Your task to perform on an android device: open sync settings in chrome Image 0: 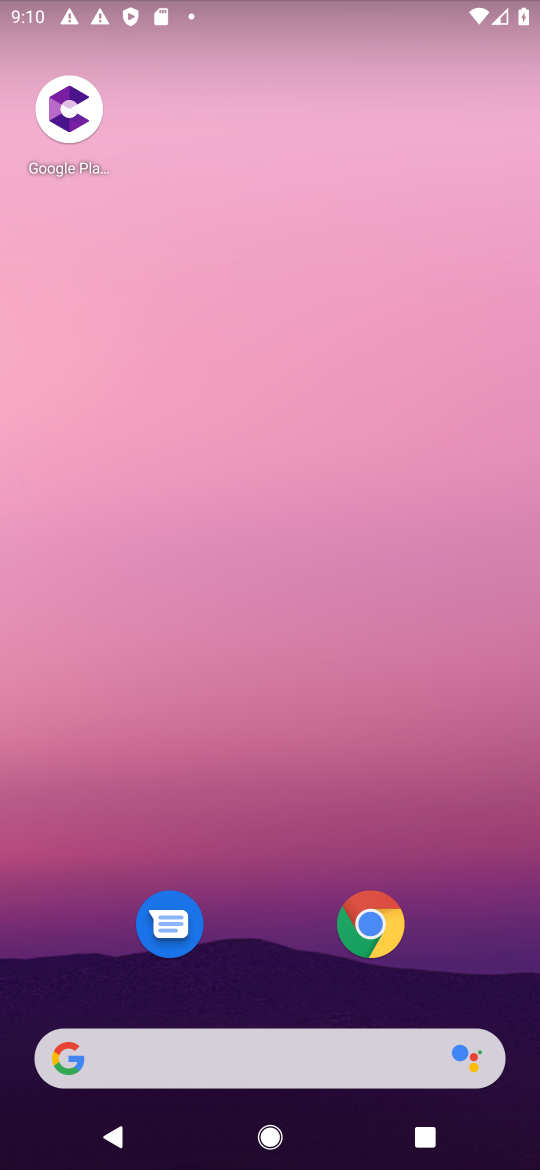
Step 0: drag from (243, 950) to (400, 209)
Your task to perform on an android device: open sync settings in chrome Image 1: 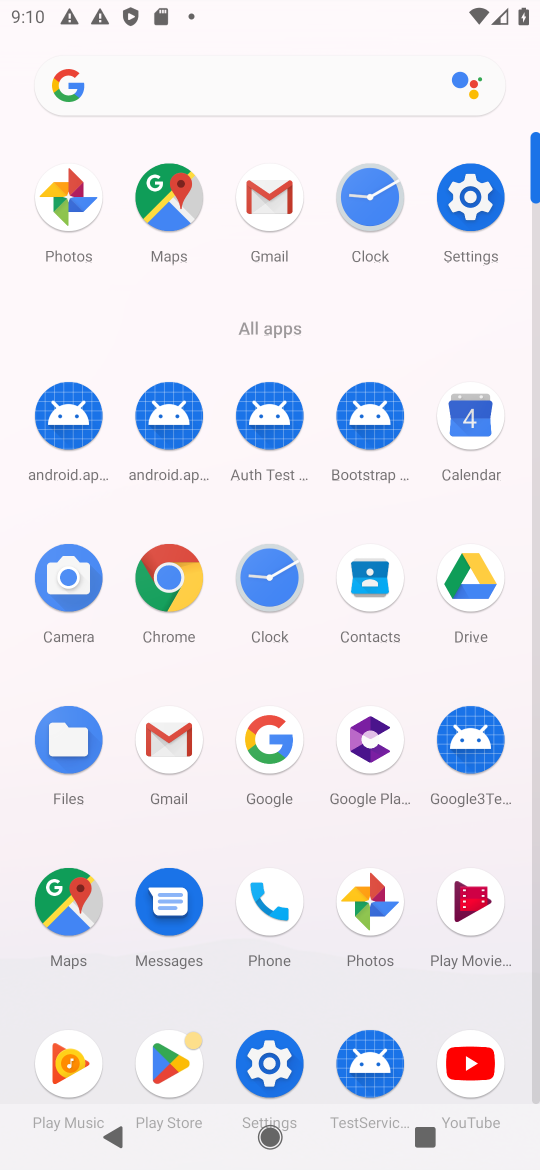
Step 1: drag from (325, 958) to (322, 553)
Your task to perform on an android device: open sync settings in chrome Image 2: 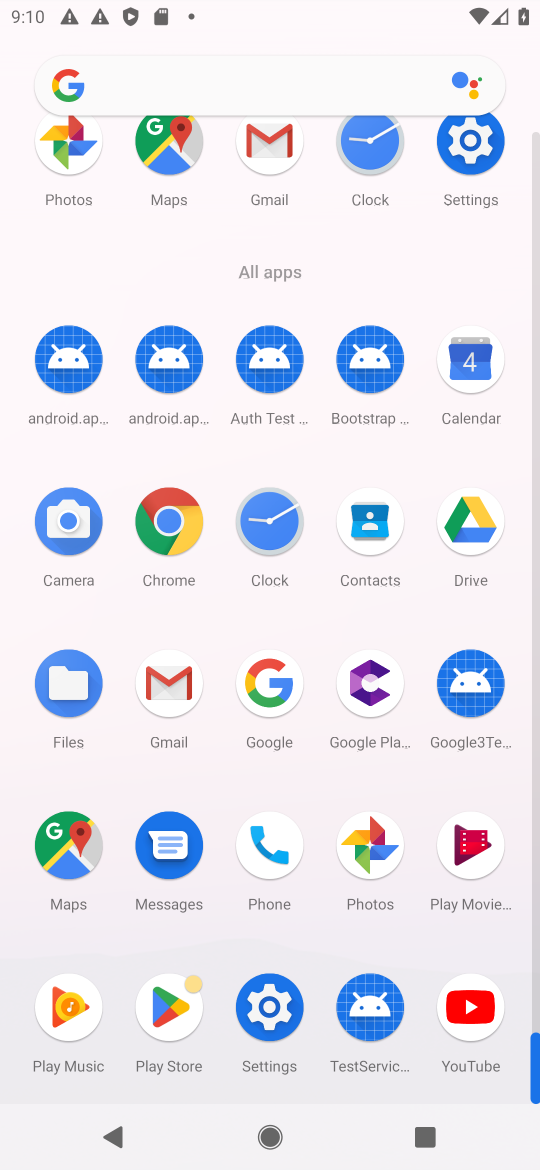
Step 2: drag from (317, 889) to (354, 360)
Your task to perform on an android device: open sync settings in chrome Image 3: 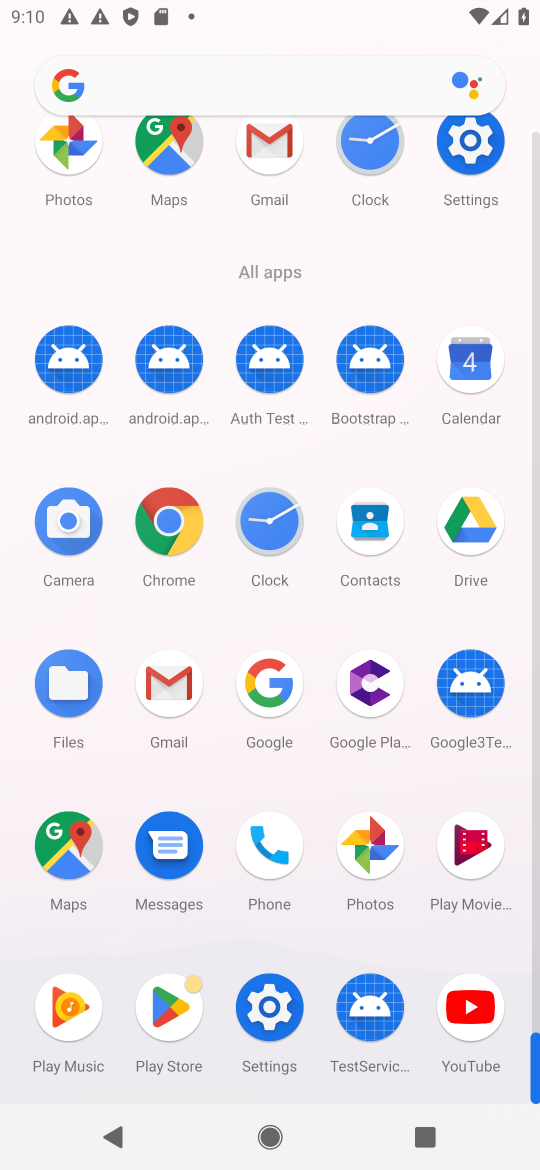
Step 3: click (176, 508)
Your task to perform on an android device: open sync settings in chrome Image 4: 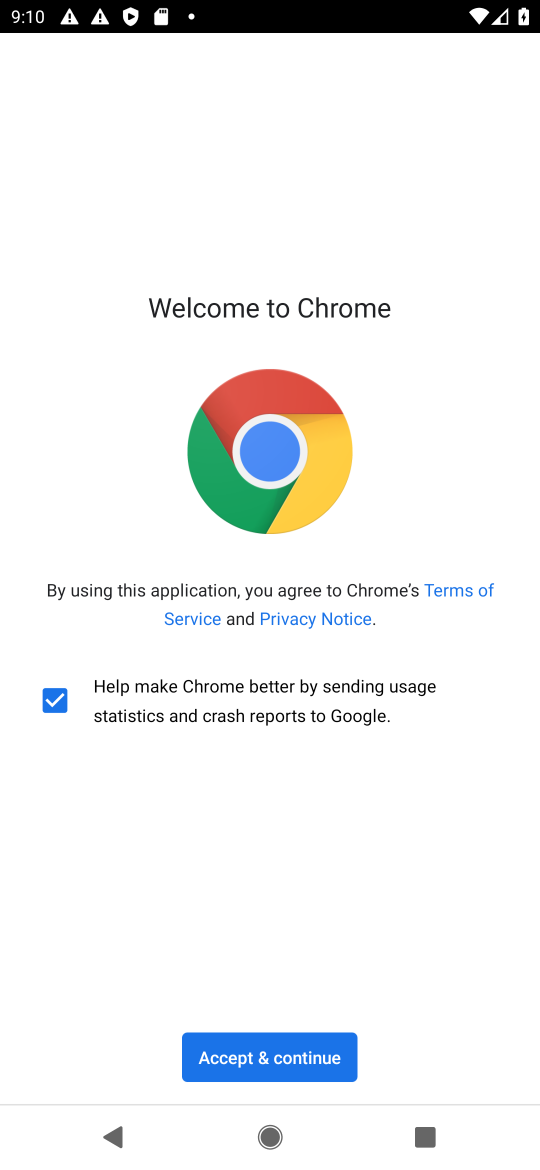
Step 4: click (268, 1042)
Your task to perform on an android device: open sync settings in chrome Image 5: 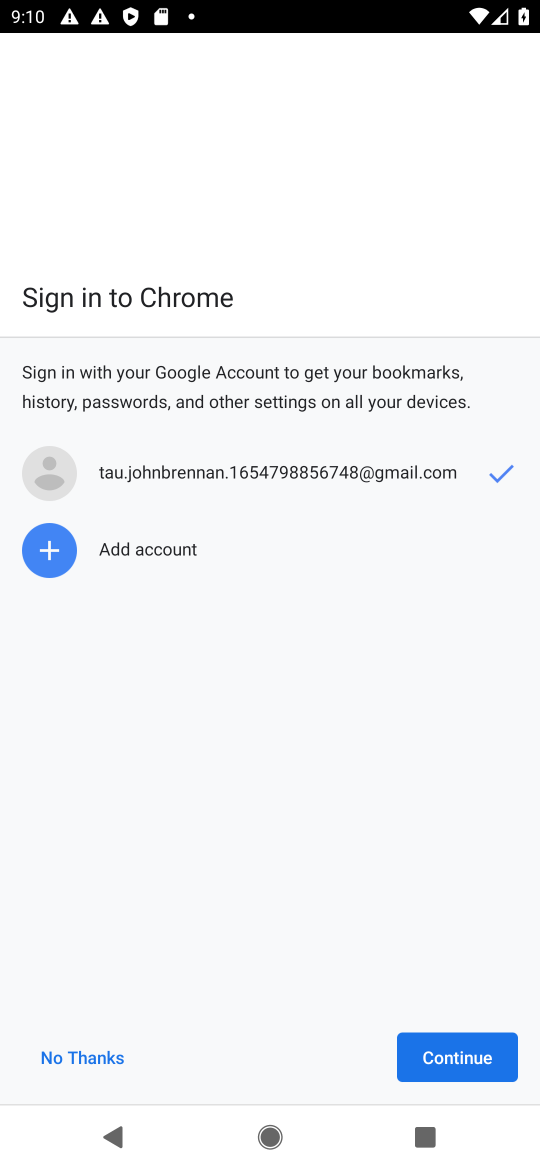
Step 5: click (449, 1053)
Your task to perform on an android device: open sync settings in chrome Image 6: 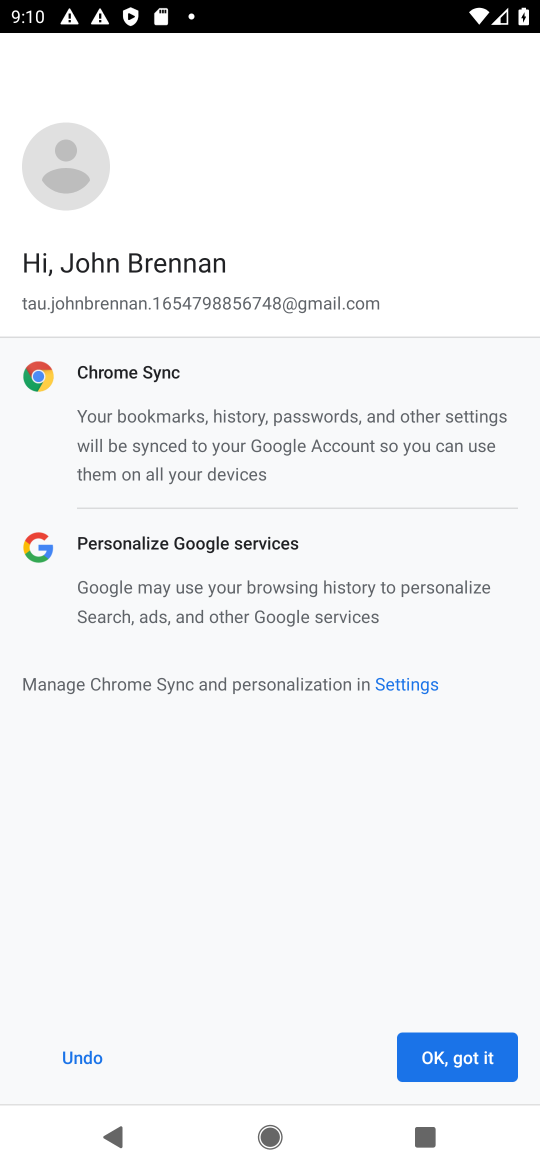
Step 6: click (438, 1042)
Your task to perform on an android device: open sync settings in chrome Image 7: 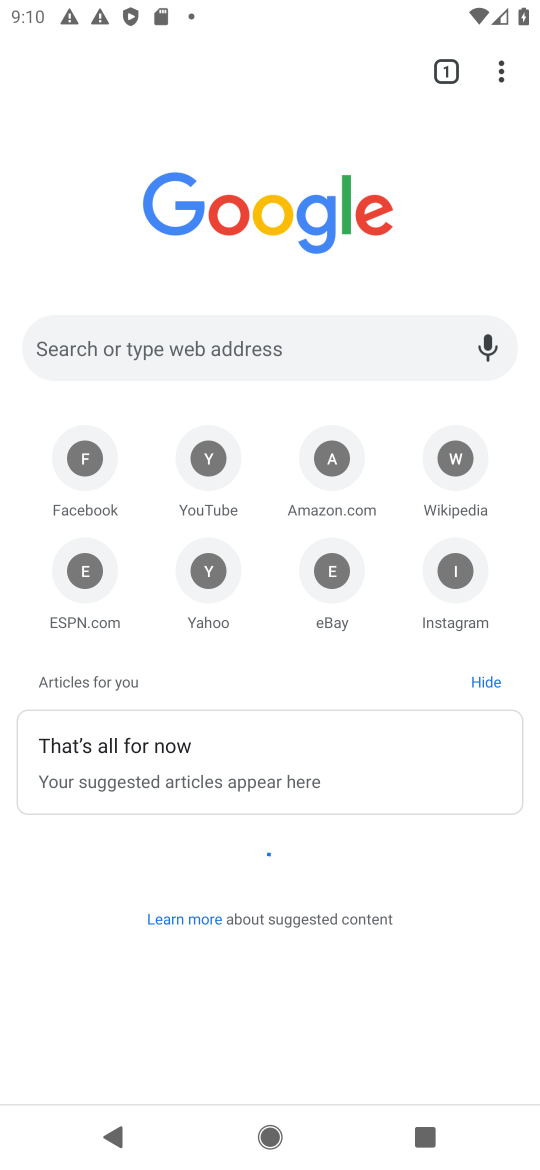
Step 7: drag from (491, 73) to (290, 611)
Your task to perform on an android device: open sync settings in chrome Image 8: 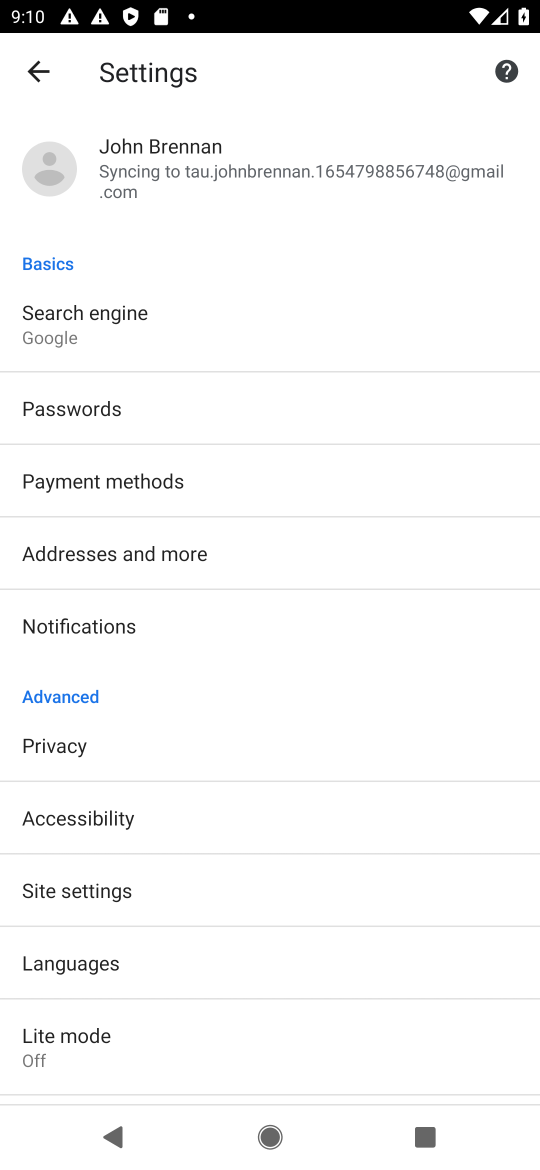
Step 8: drag from (287, 932) to (382, 255)
Your task to perform on an android device: open sync settings in chrome Image 9: 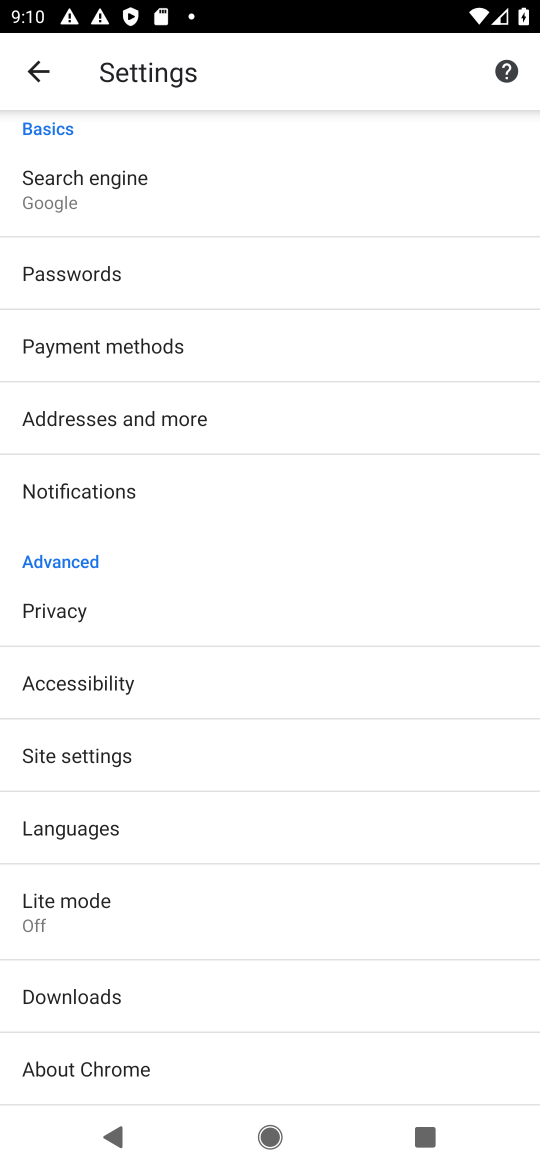
Step 9: click (129, 758)
Your task to perform on an android device: open sync settings in chrome Image 10: 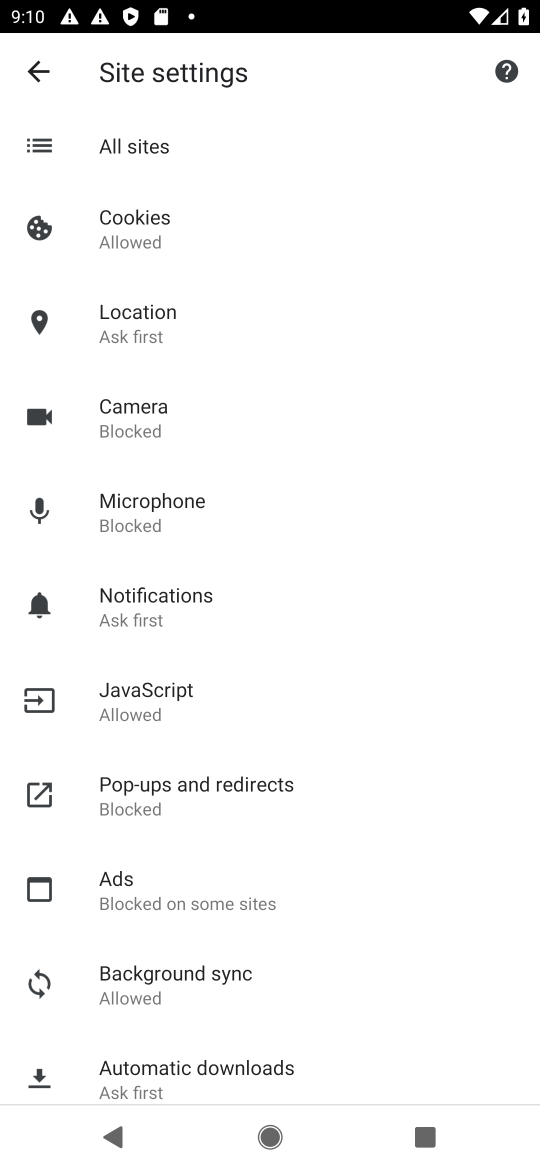
Step 10: click (161, 976)
Your task to perform on an android device: open sync settings in chrome Image 11: 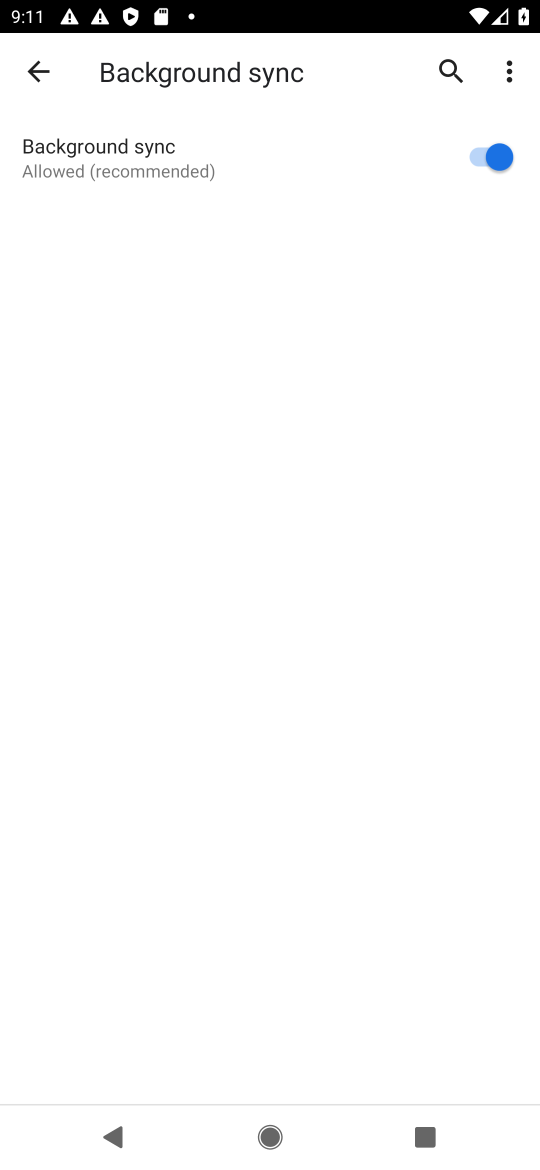
Step 11: click (498, 163)
Your task to perform on an android device: open sync settings in chrome Image 12: 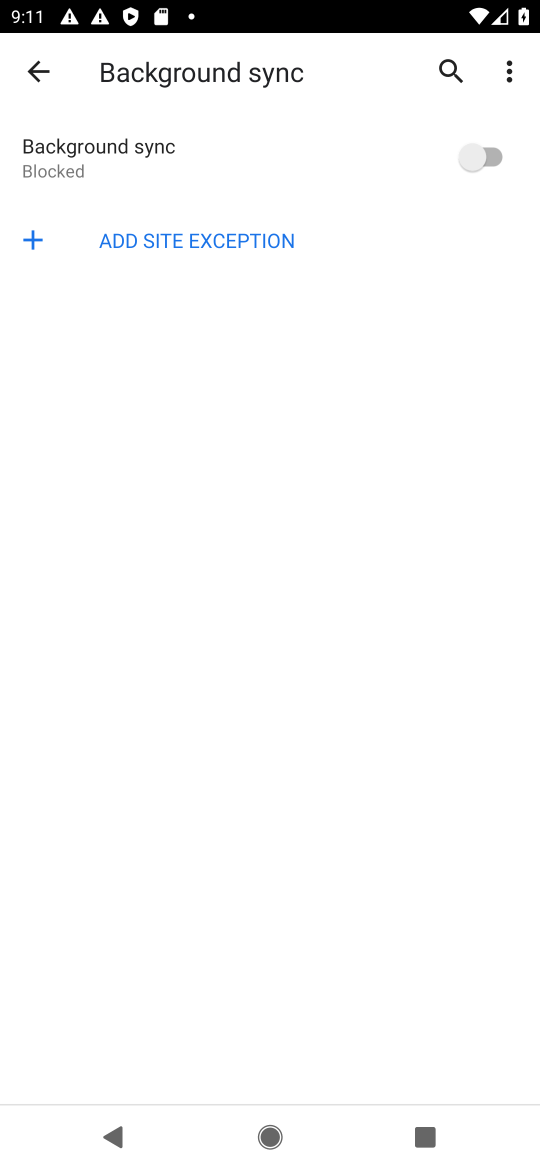
Step 12: task complete